Your task to perform on an android device: turn off javascript in the chrome app Image 0: 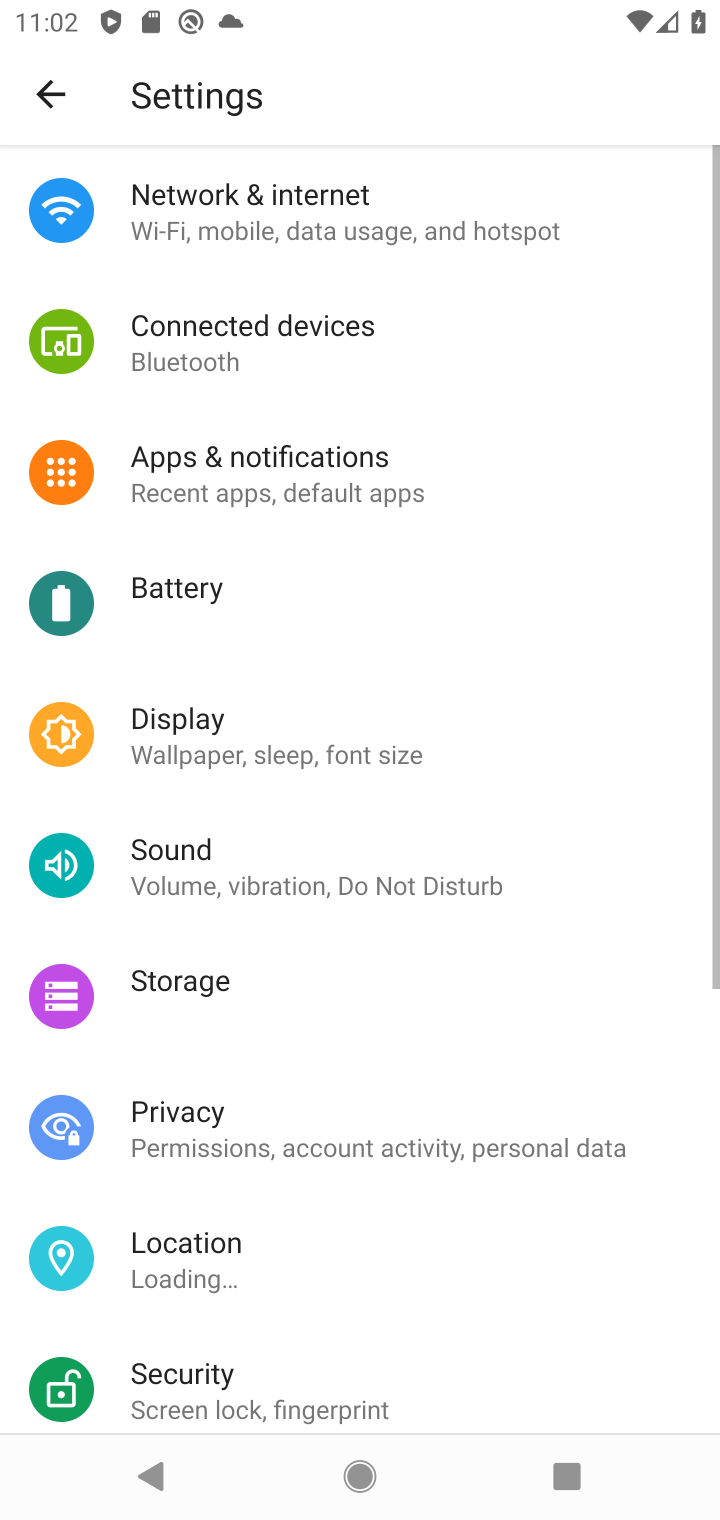
Step 0: press home button
Your task to perform on an android device: turn off javascript in the chrome app Image 1: 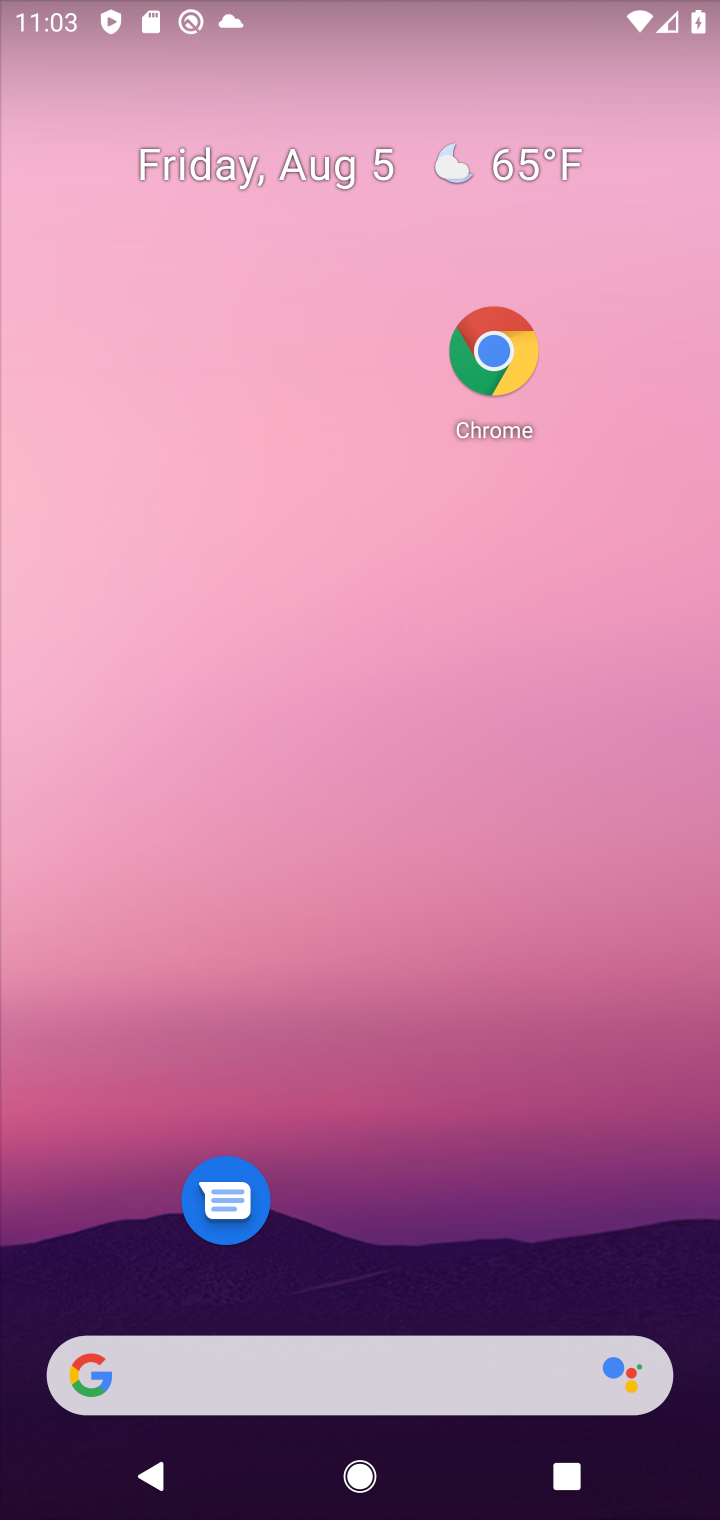
Step 1: drag from (440, 919) to (442, 290)
Your task to perform on an android device: turn off javascript in the chrome app Image 2: 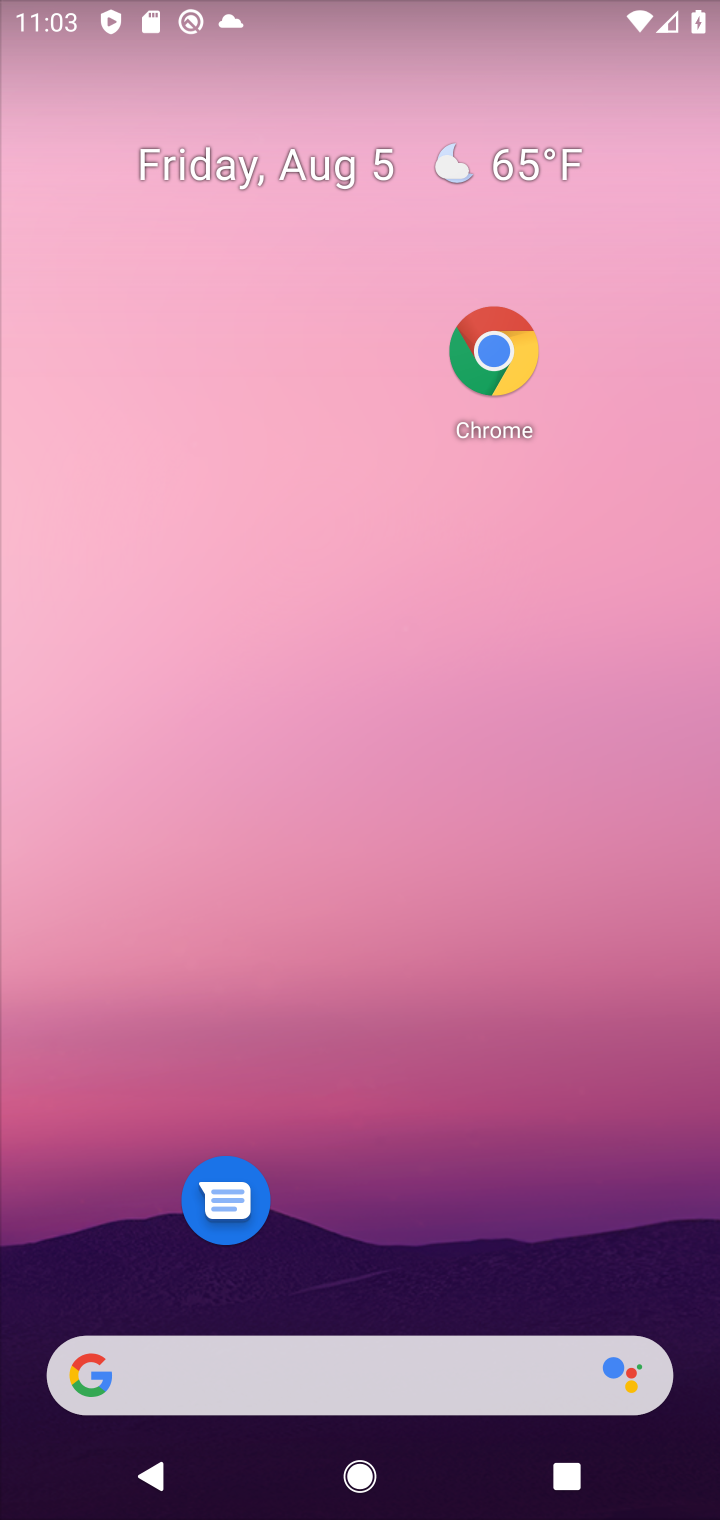
Step 2: drag from (503, 688) to (509, 138)
Your task to perform on an android device: turn off javascript in the chrome app Image 3: 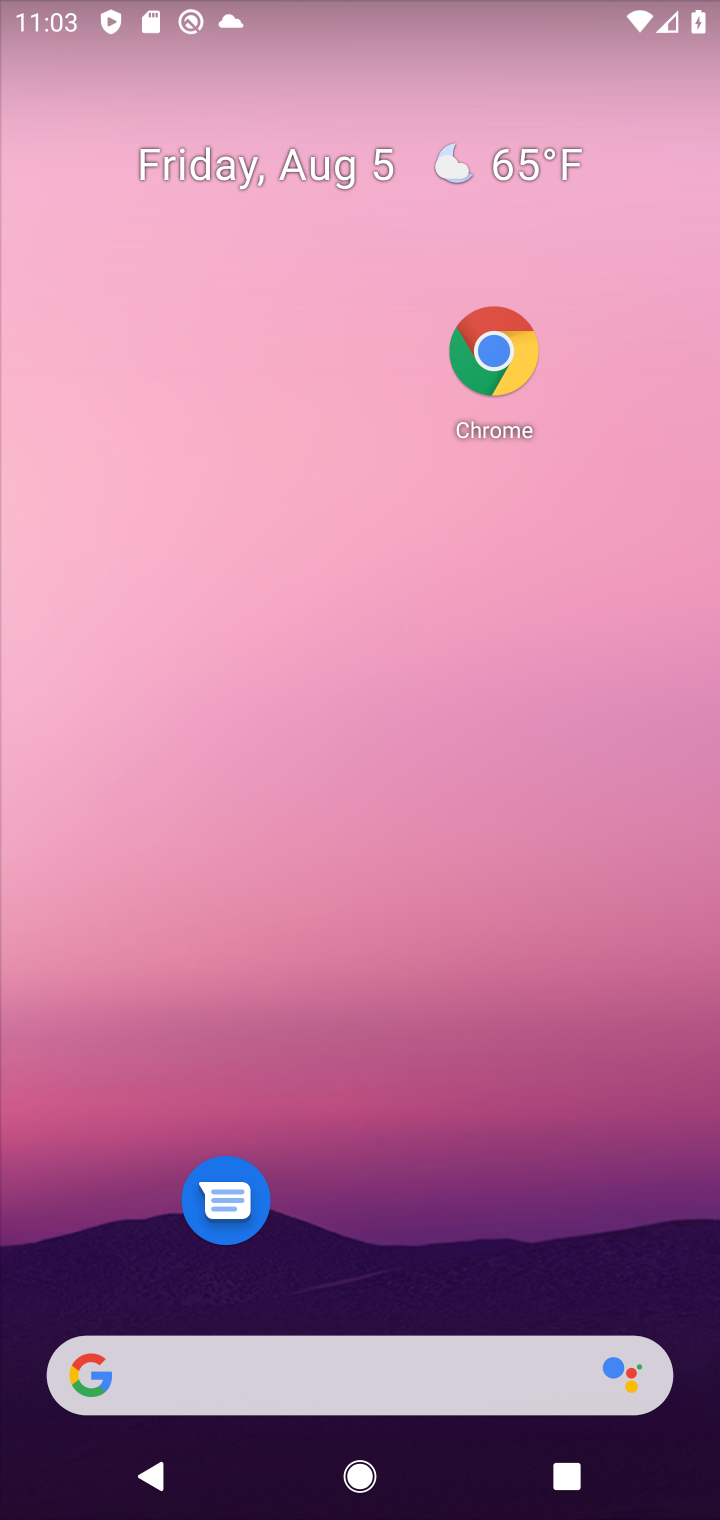
Step 3: drag from (280, 1089) to (339, 104)
Your task to perform on an android device: turn off javascript in the chrome app Image 4: 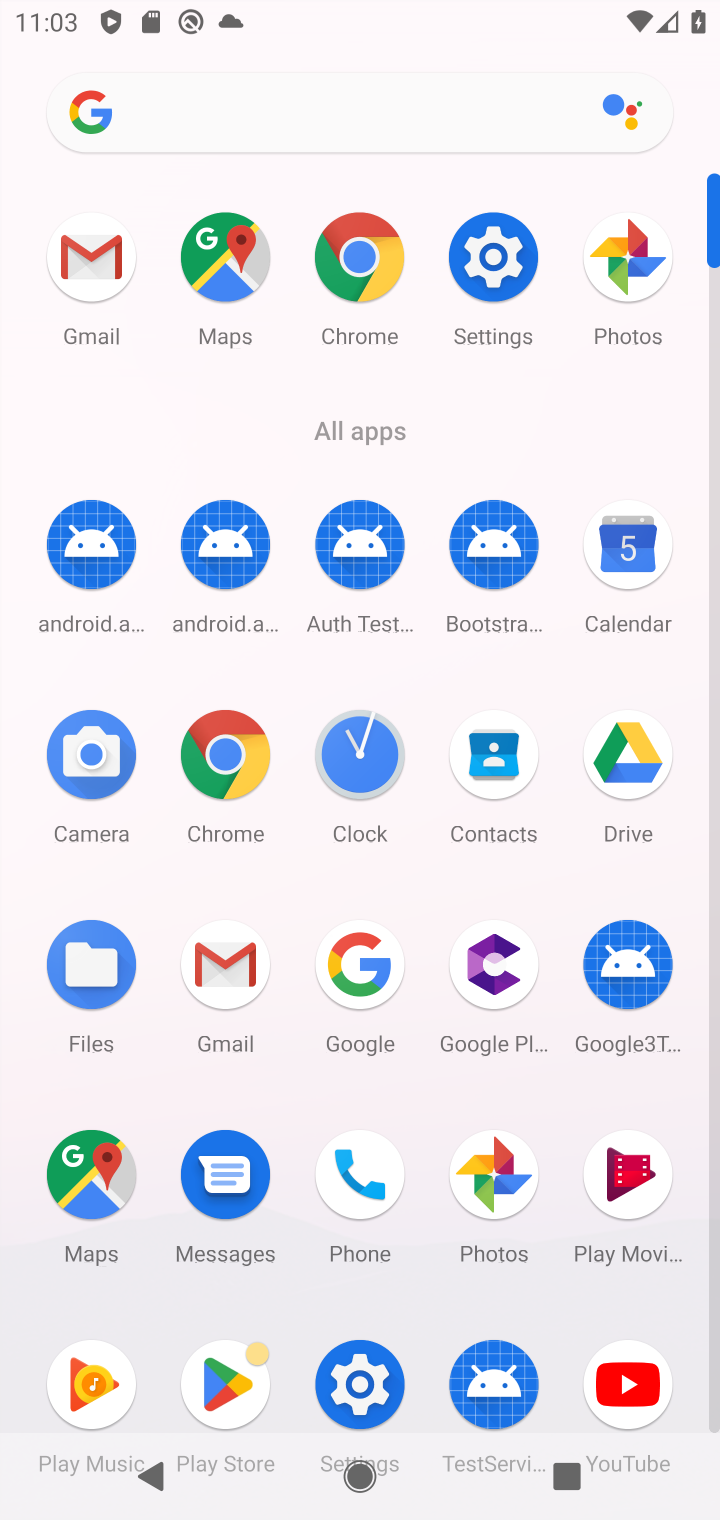
Step 4: click (366, 289)
Your task to perform on an android device: turn off javascript in the chrome app Image 5: 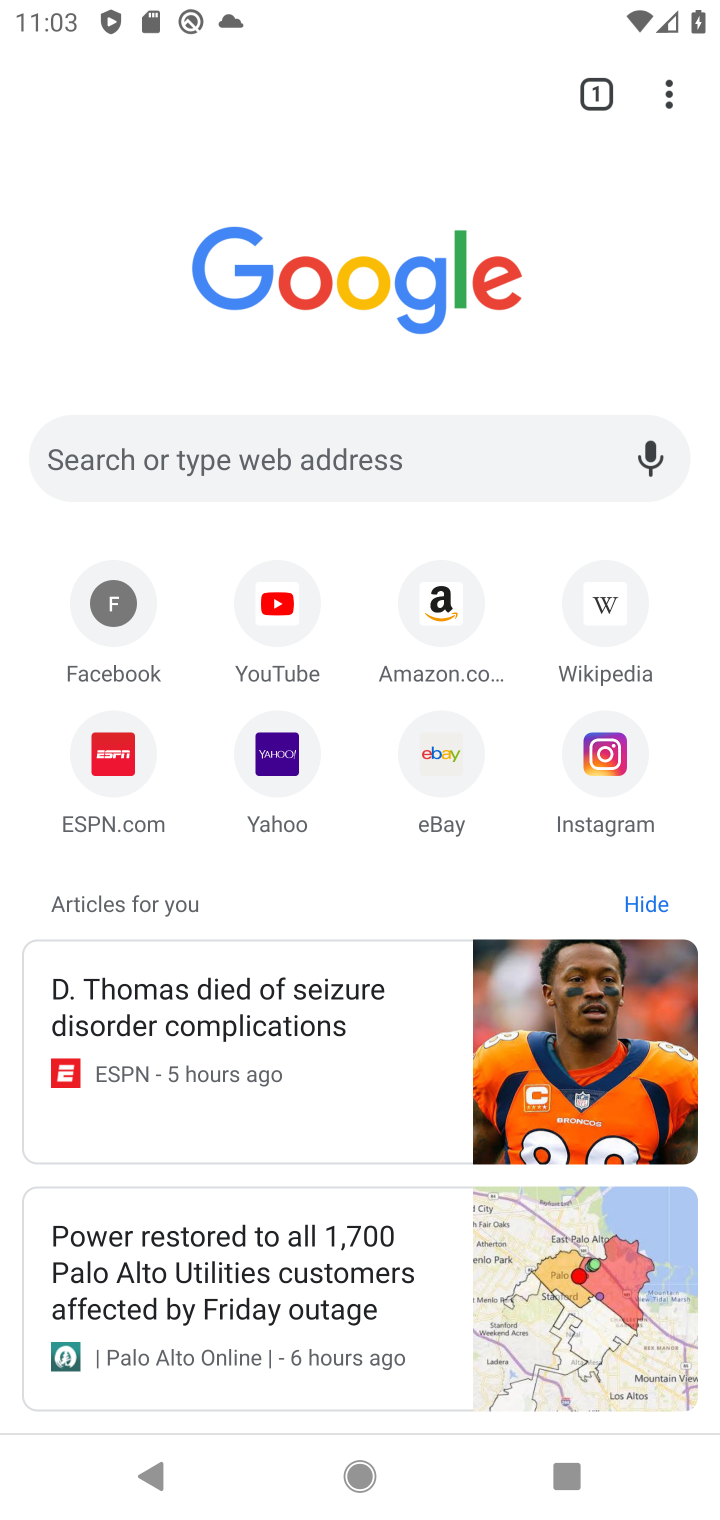
Step 5: click (674, 96)
Your task to perform on an android device: turn off javascript in the chrome app Image 6: 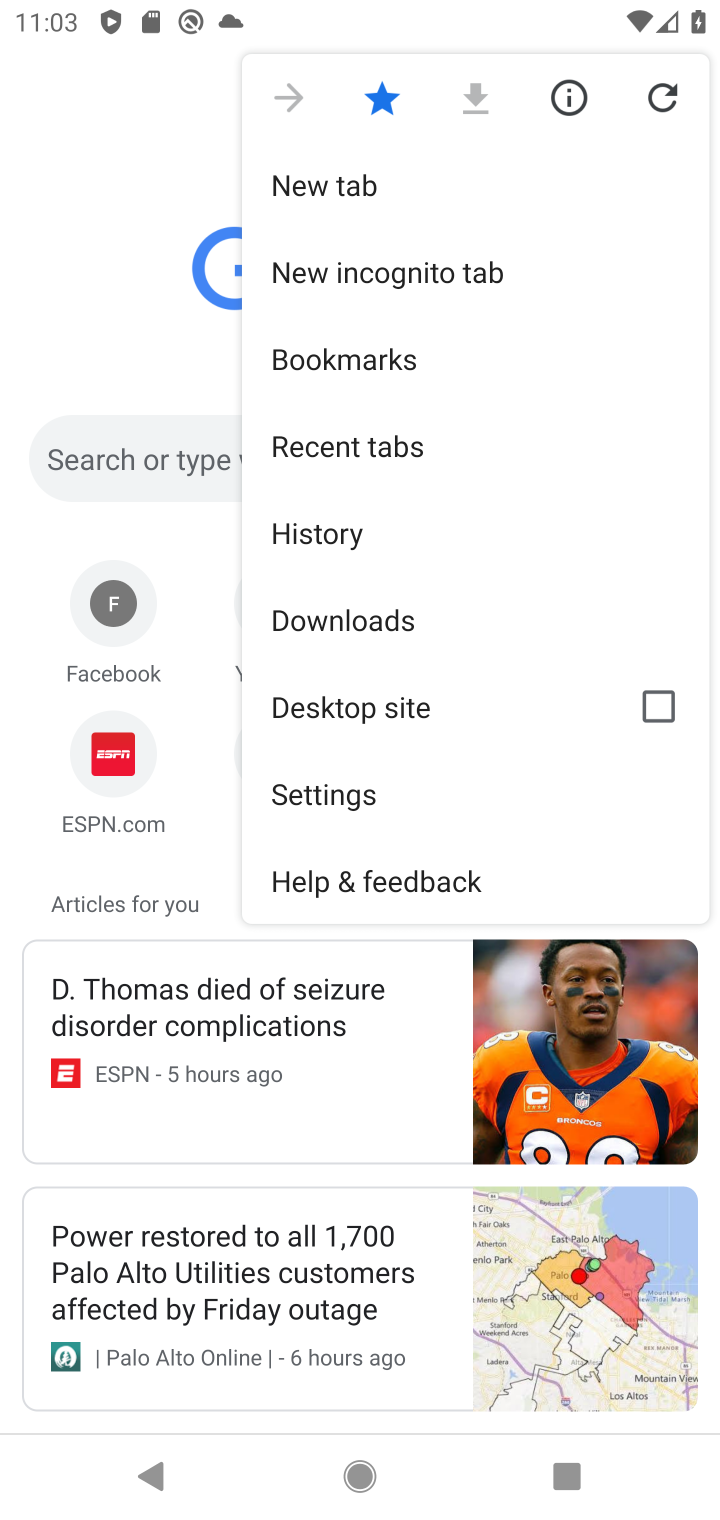
Step 6: click (335, 785)
Your task to perform on an android device: turn off javascript in the chrome app Image 7: 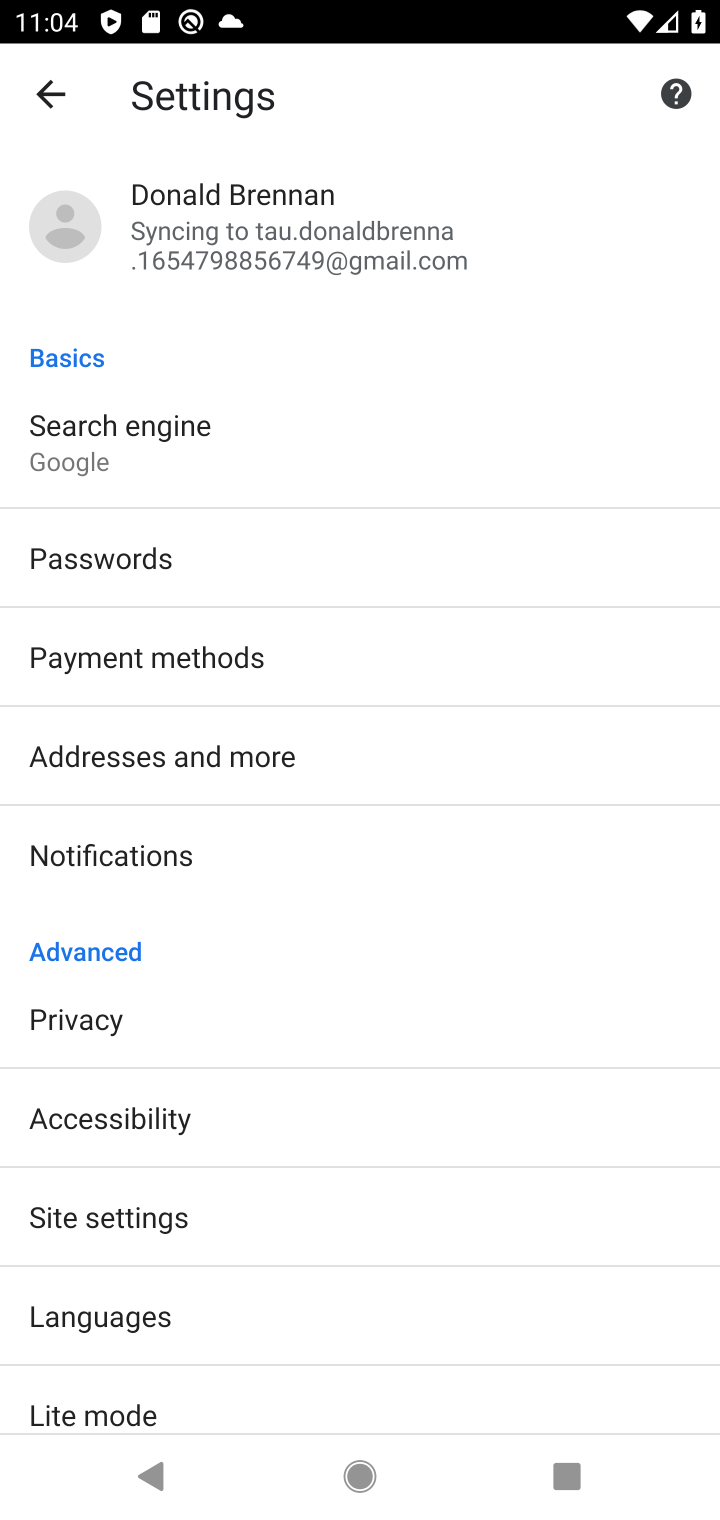
Step 7: drag from (360, 1171) to (428, 509)
Your task to perform on an android device: turn off javascript in the chrome app Image 8: 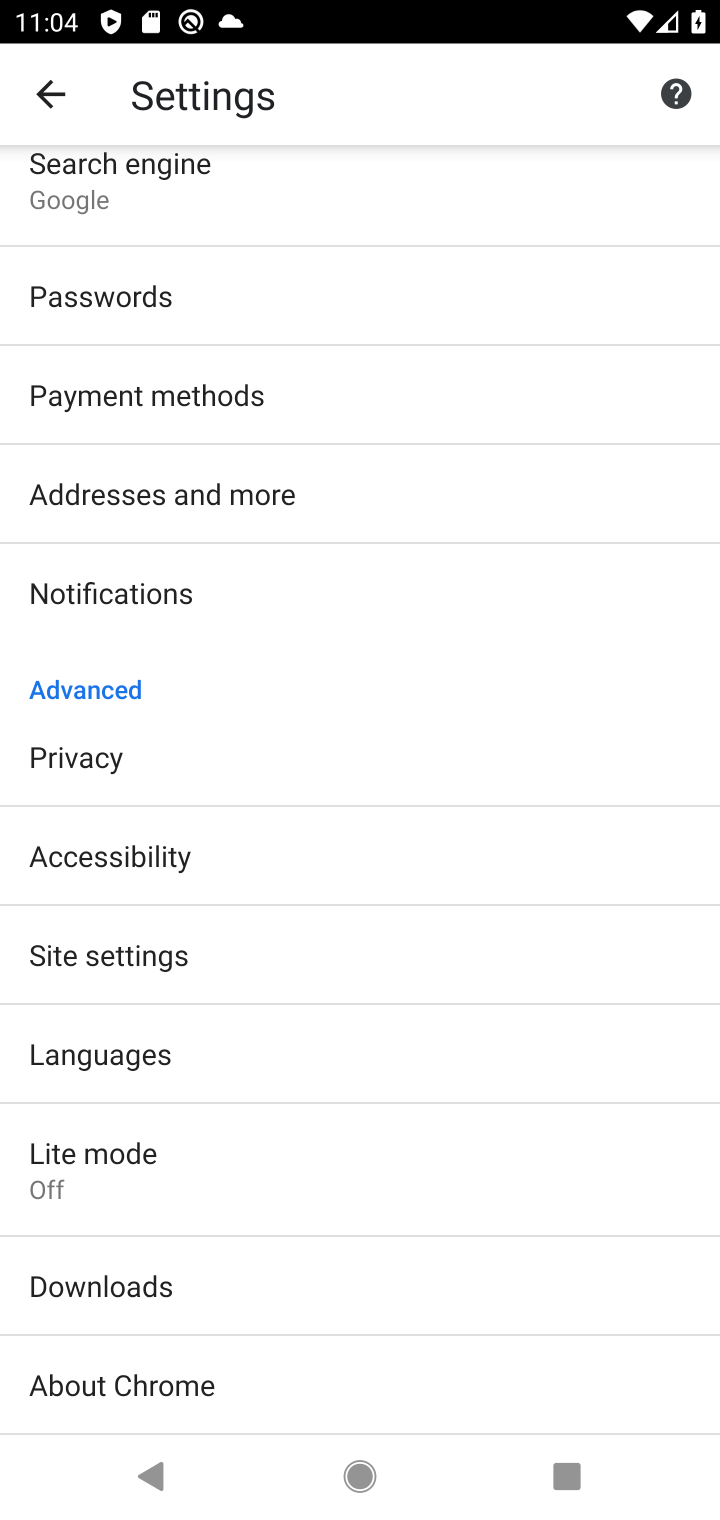
Step 8: click (185, 968)
Your task to perform on an android device: turn off javascript in the chrome app Image 9: 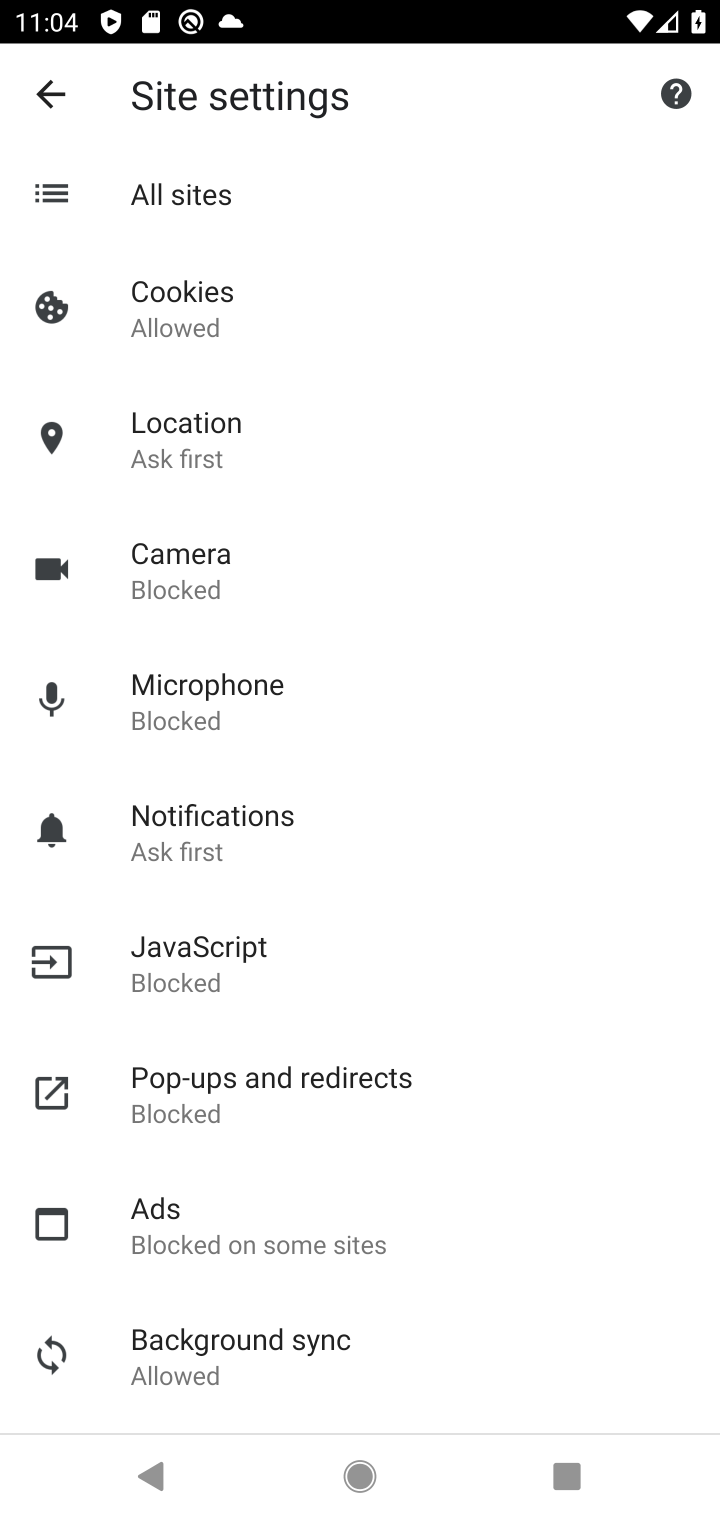
Step 9: click (162, 961)
Your task to perform on an android device: turn off javascript in the chrome app Image 10: 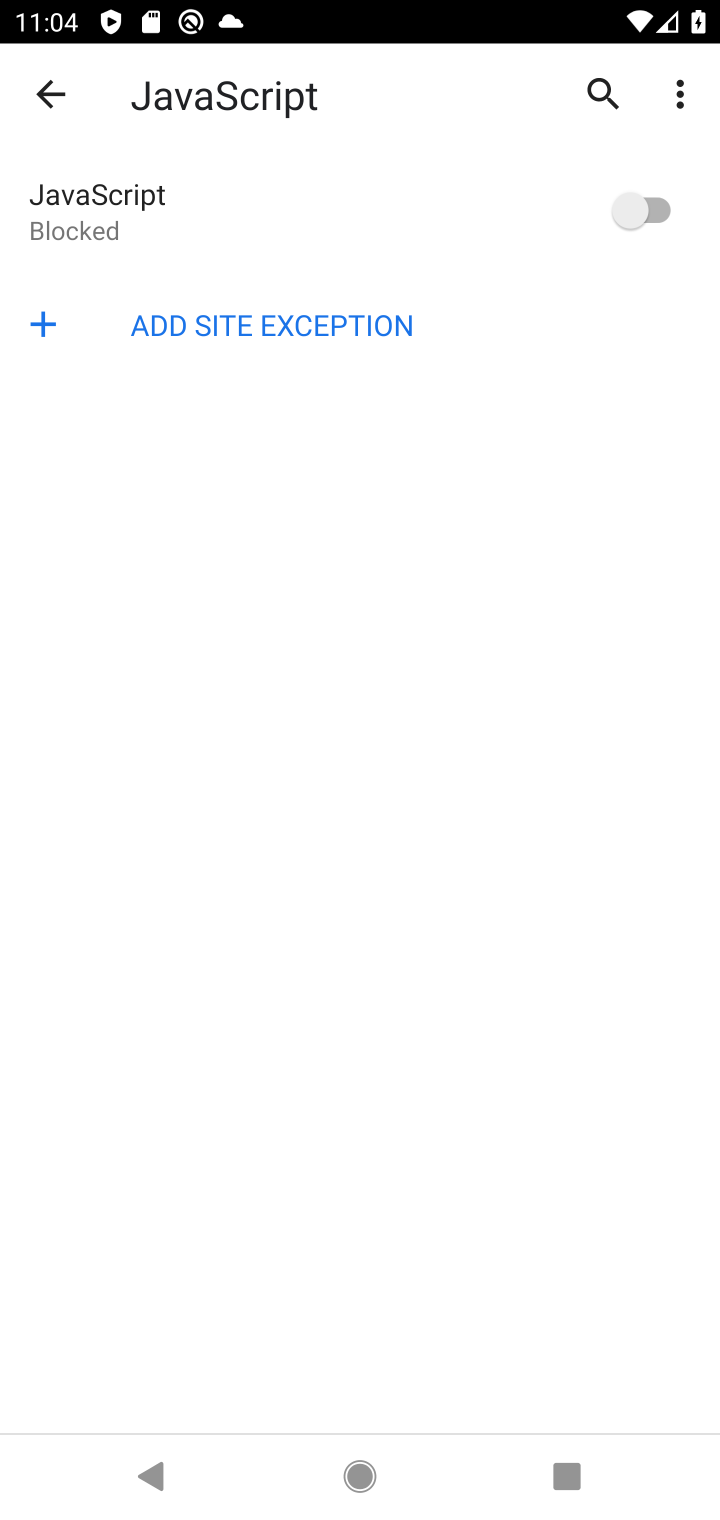
Step 10: task complete